Your task to perform on an android device: set default search engine in the chrome app Image 0: 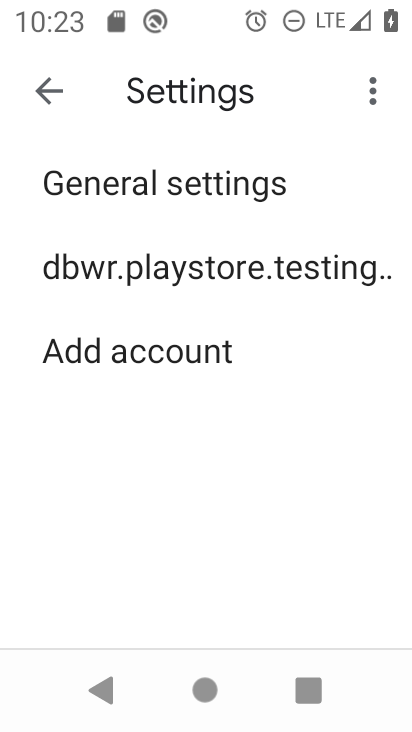
Step 0: press home button
Your task to perform on an android device: set default search engine in the chrome app Image 1: 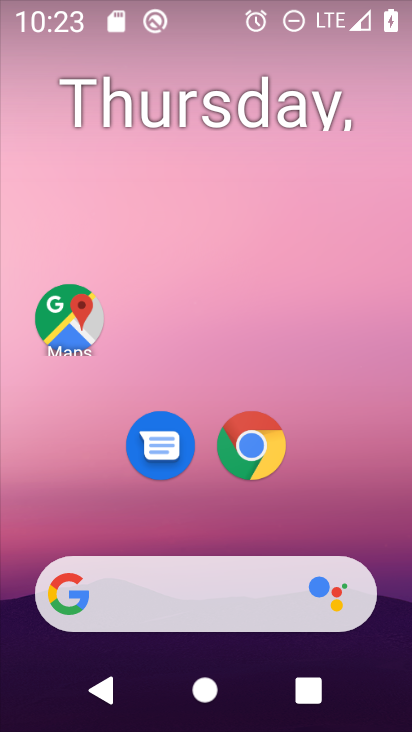
Step 1: drag from (402, 641) to (309, 104)
Your task to perform on an android device: set default search engine in the chrome app Image 2: 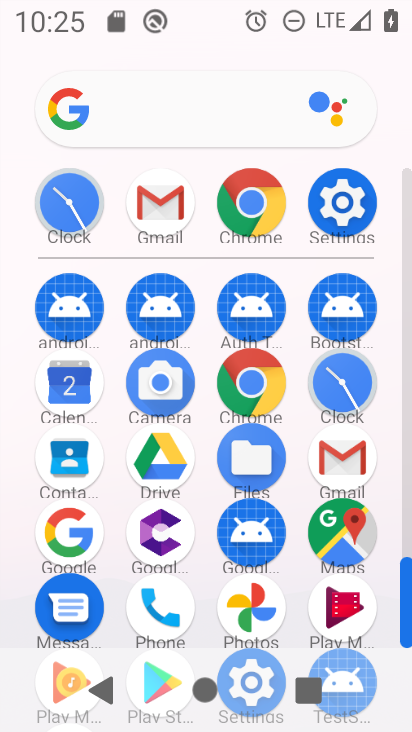
Step 2: click (262, 386)
Your task to perform on an android device: set default search engine in the chrome app Image 3: 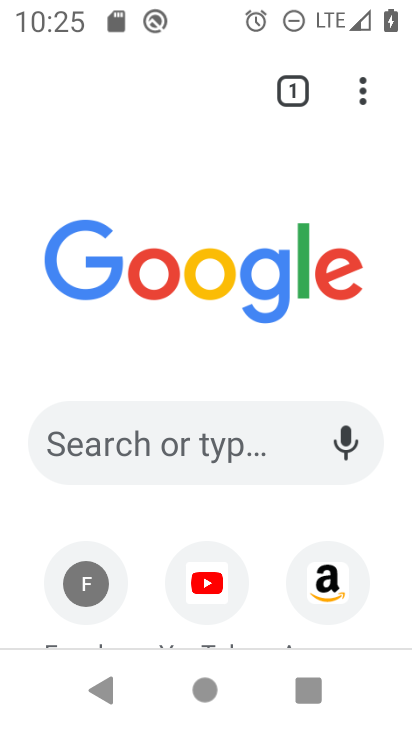
Step 3: click (363, 85)
Your task to perform on an android device: set default search engine in the chrome app Image 4: 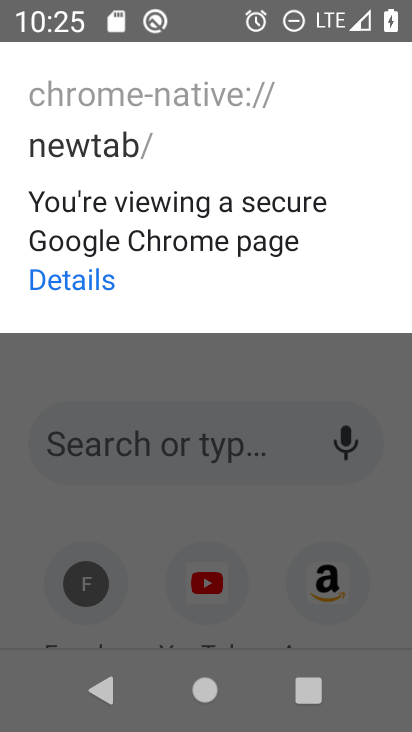
Step 4: press back button
Your task to perform on an android device: set default search engine in the chrome app Image 5: 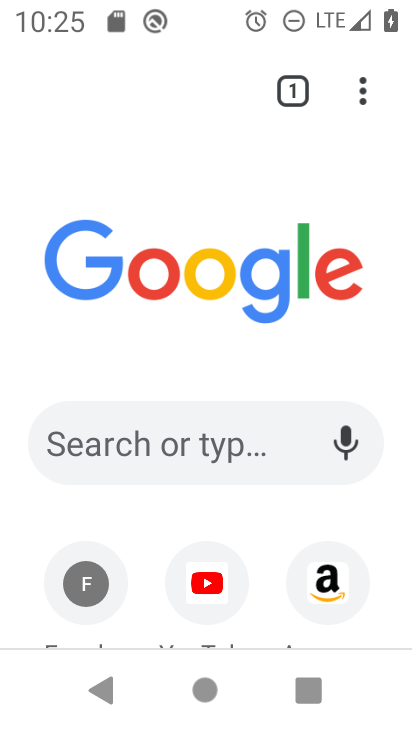
Step 5: click (365, 89)
Your task to perform on an android device: set default search engine in the chrome app Image 6: 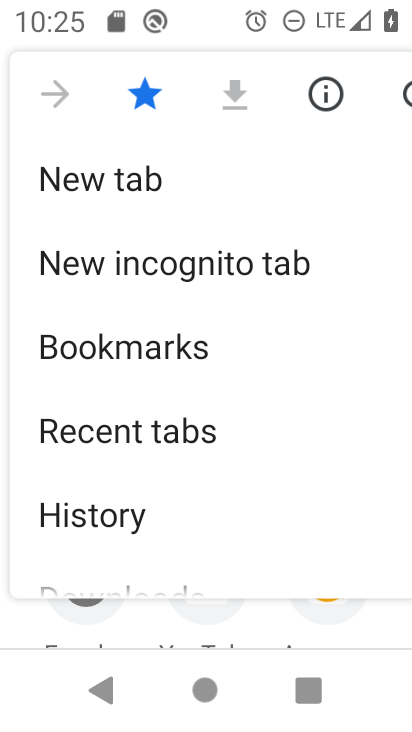
Step 6: drag from (154, 554) to (156, 82)
Your task to perform on an android device: set default search engine in the chrome app Image 7: 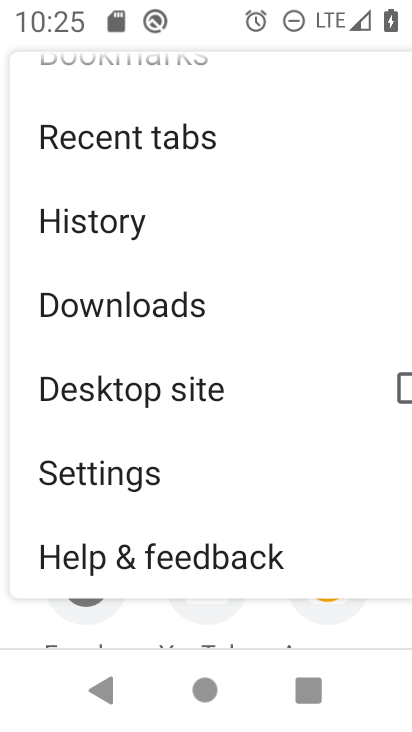
Step 7: click (157, 481)
Your task to perform on an android device: set default search engine in the chrome app Image 8: 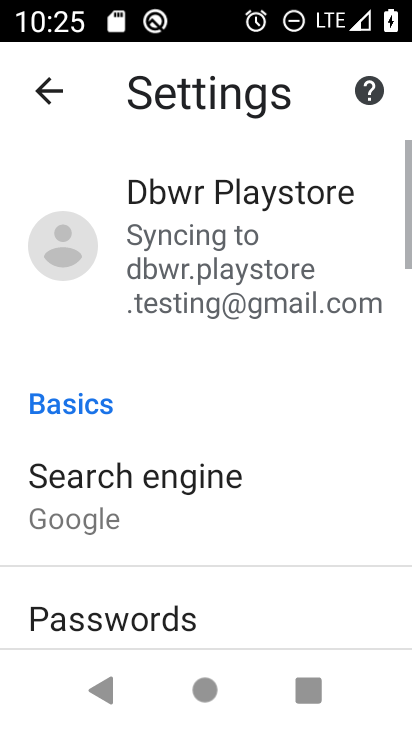
Step 8: click (166, 533)
Your task to perform on an android device: set default search engine in the chrome app Image 9: 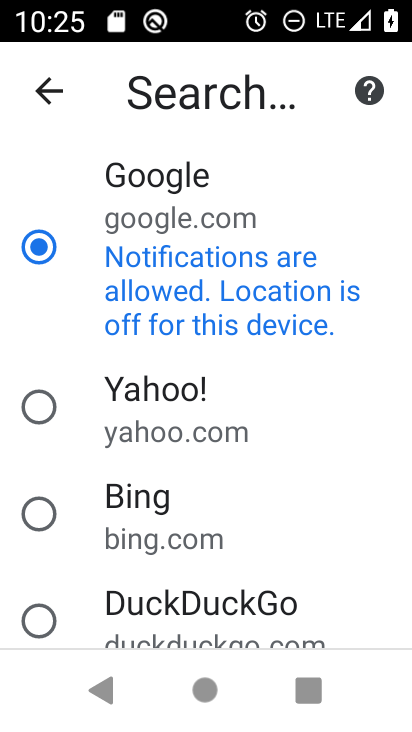
Step 9: click (210, 603)
Your task to perform on an android device: set default search engine in the chrome app Image 10: 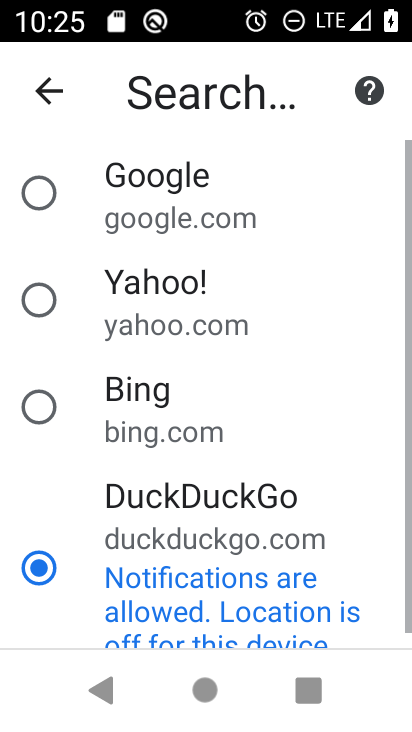
Step 10: task complete